Your task to perform on an android device: Set the phone to "Do not disturb". Image 0: 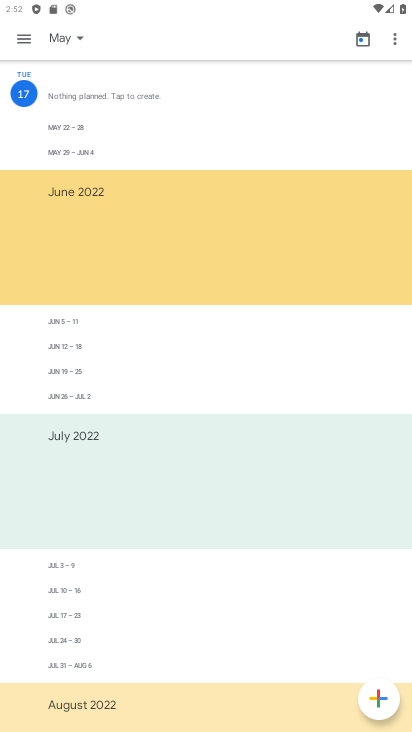
Step 0: press home button
Your task to perform on an android device: Set the phone to "Do not disturb". Image 1: 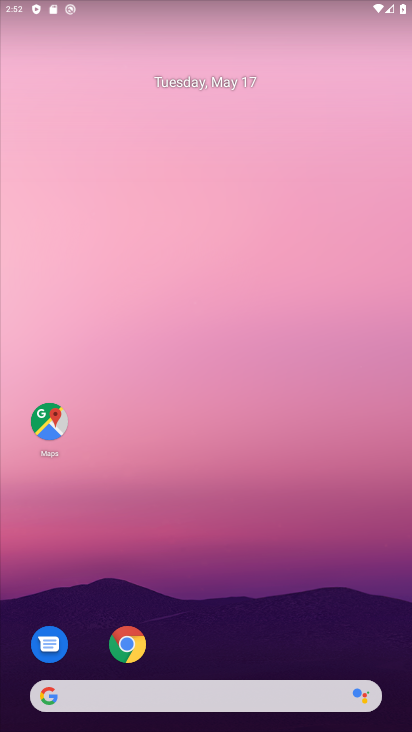
Step 1: drag from (251, 629) to (223, 121)
Your task to perform on an android device: Set the phone to "Do not disturb". Image 2: 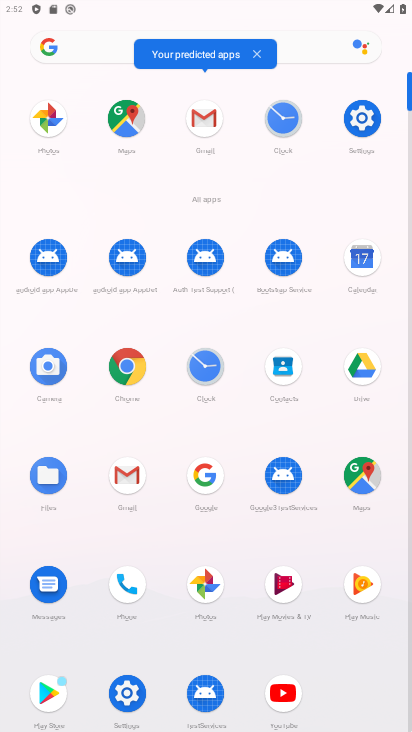
Step 2: click (359, 137)
Your task to perform on an android device: Set the phone to "Do not disturb". Image 3: 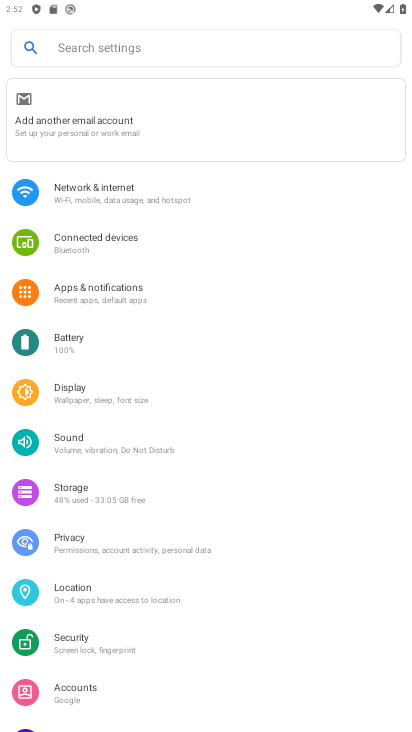
Step 3: click (264, 450)
Your task to perform on an android device: Set the phone to "Do not disturb". Image 4: 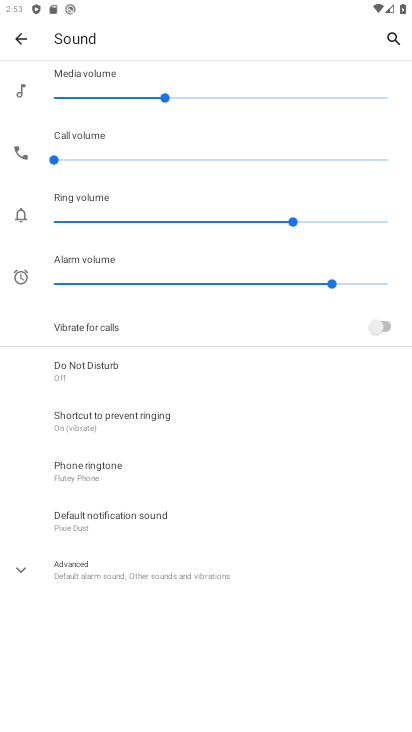
Step 4: click (203, 384)
Your task to perform on an android device: Set the phone to "Do not disturb". Image 5: 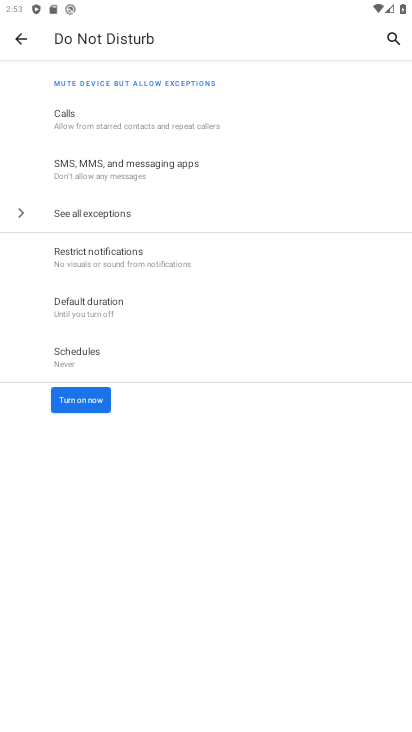
Step 5: click (98, 405)
Your task to perform on an android device: Set the phone to "Do not disturb". Image 6: 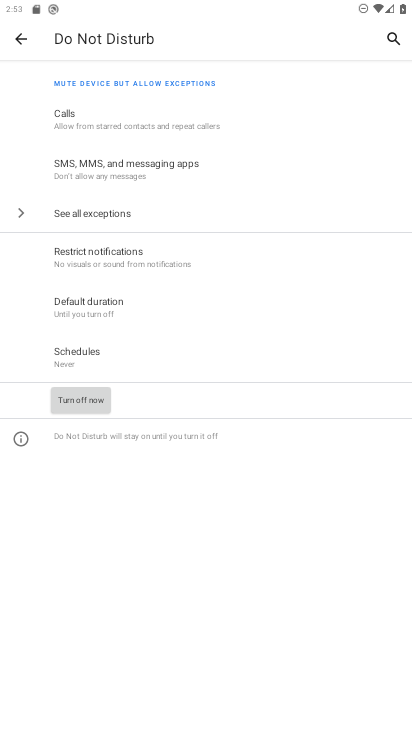
Step 6: task complete